Your task to perform on an android device: add a label to a message in the gmail app Image 0: 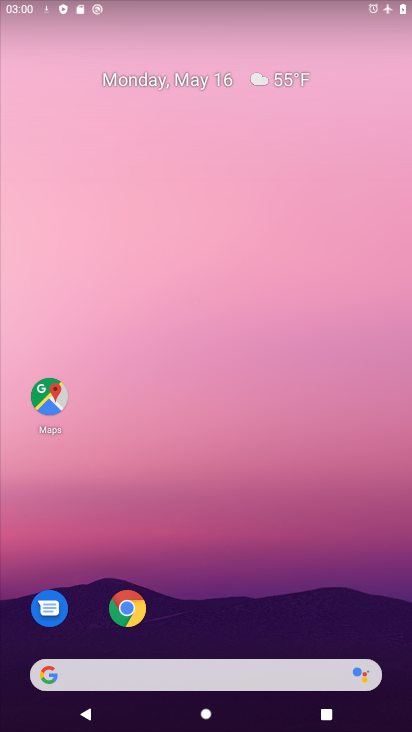
Step 0: drag from (195, 620) to (198, 334)
Your task to perform on an android device: add a label to a message in the gmail app Image 1: 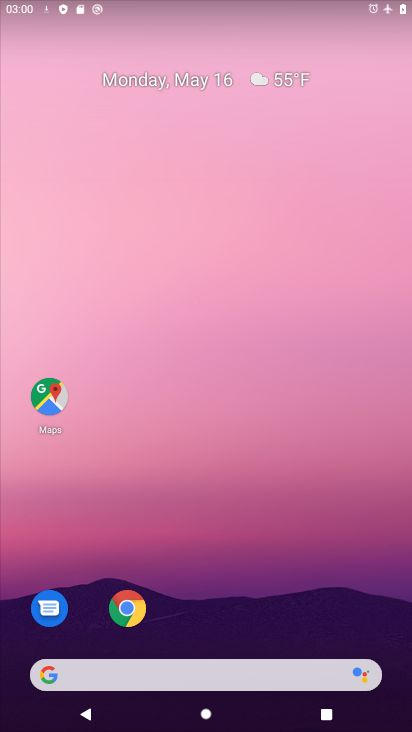
Step 1: drag from (211, 634) to (199, 83)
Your task to perform on an android device: add a label to a message in the gmail app Image 2: 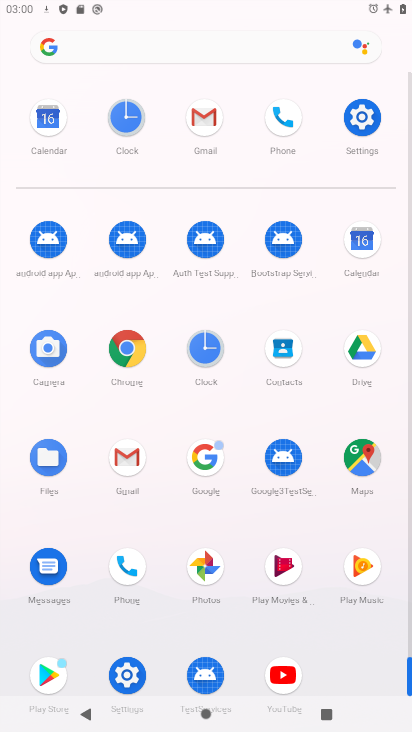
Step 2: click (202, 138)
Your task to perform on an android device: add a label to a message in the gmail app Image 3: 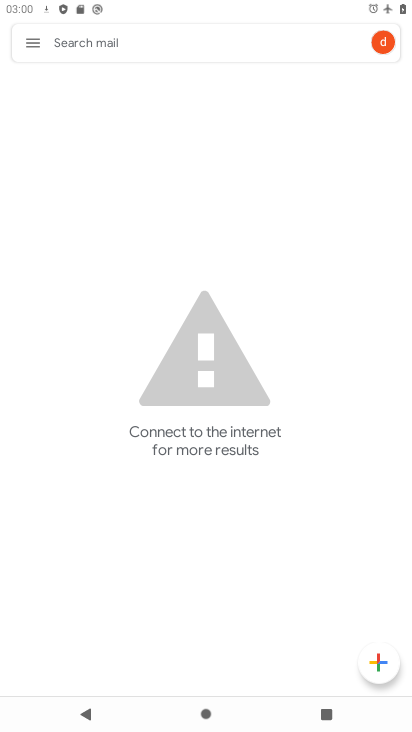
Step 3: click (30, 51)
Your task to perform on an android device: add a label to a message in the gmail app Image 4: 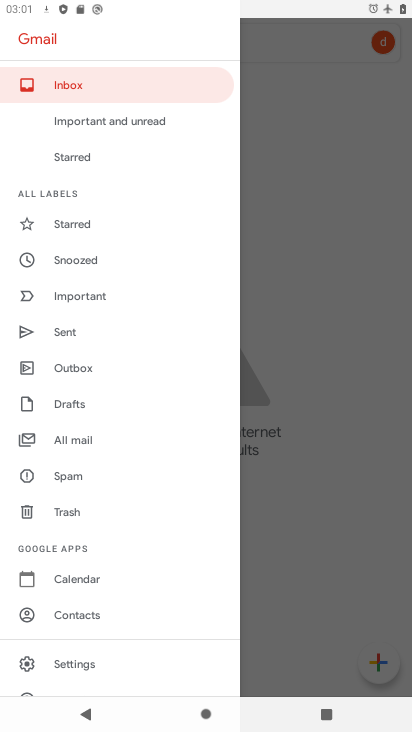
Step 4: click (60, 434)
Your task to perform on an android device: add a label to a message in the gmail app Image 5: 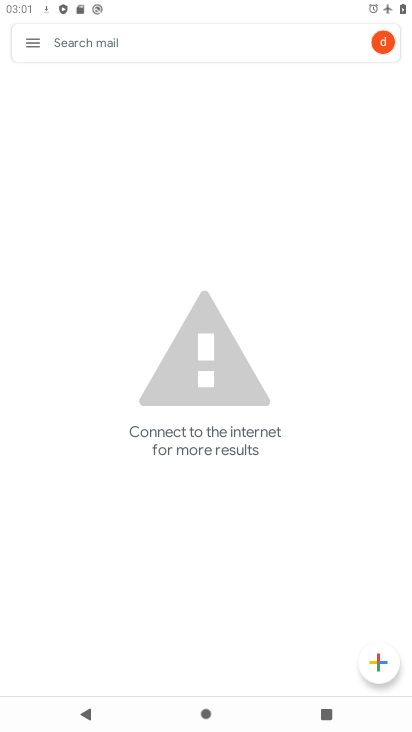
Step 5: task complete